Your task to perform on an android device: toggle improve location accuracy Image 0: 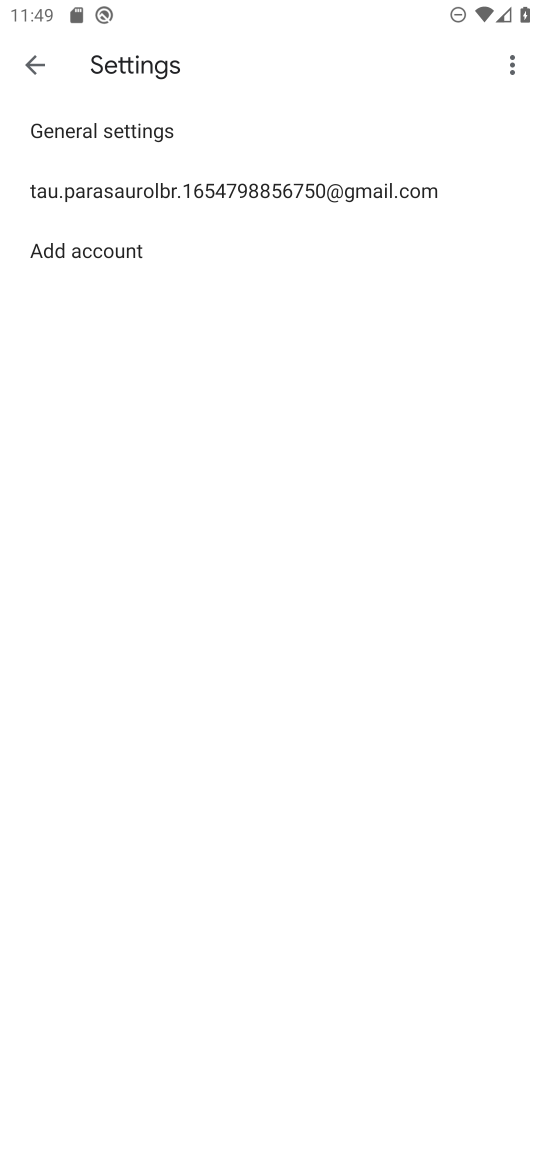
Step 0: press home button
Your task to perform on an android device: toggle improve location accuracy Image 1: 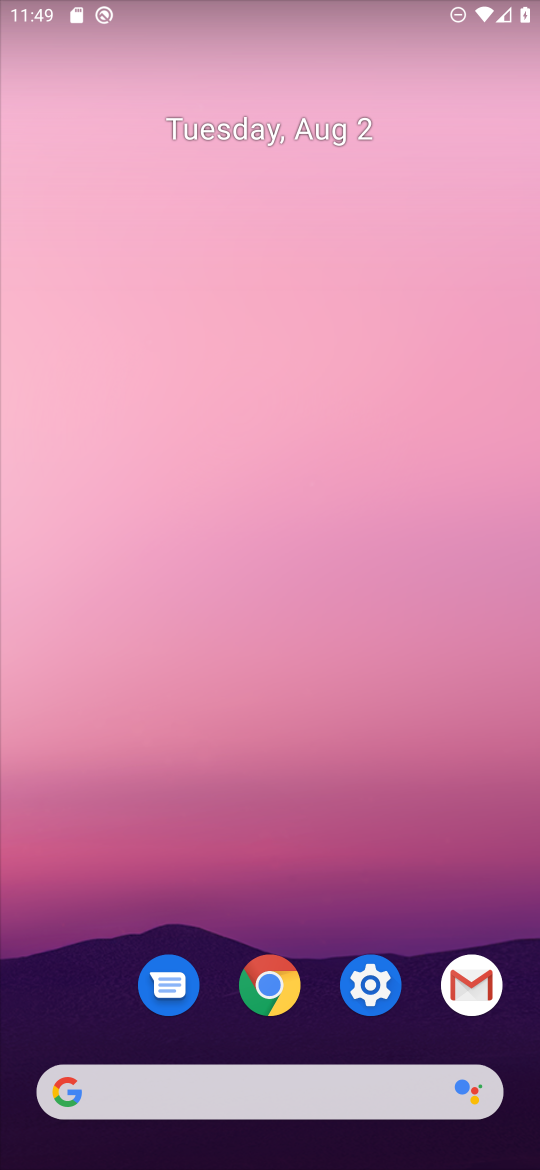
Step 1: click (369, 994)
Your task to perform on an android device: toggle improve location accuracy Image 2: 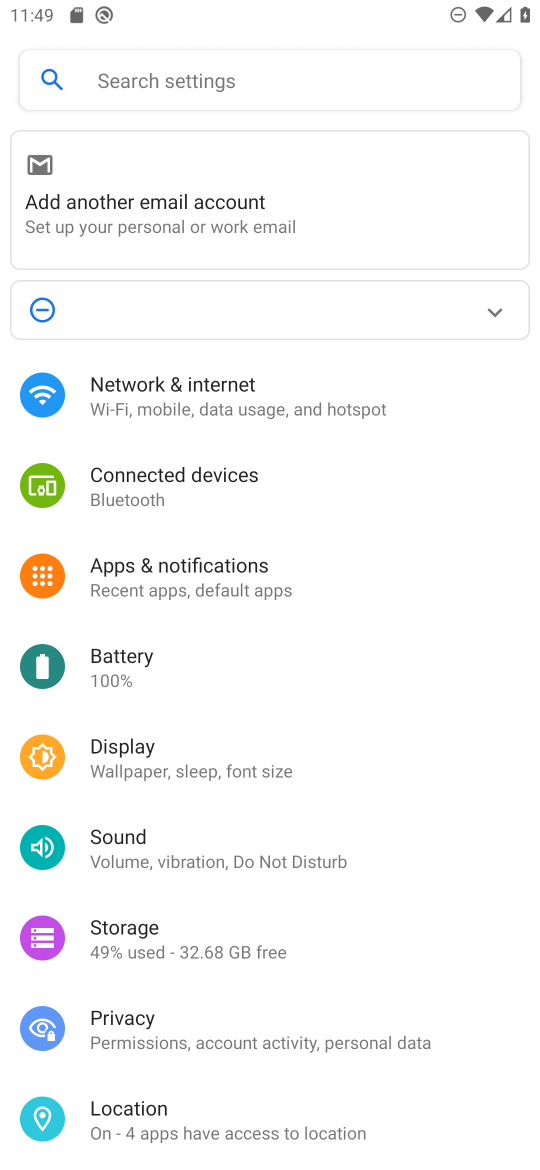
Step 2: click (162, 1103)
Your task to perform on an android device: toggle improve location accuracy Image 3: 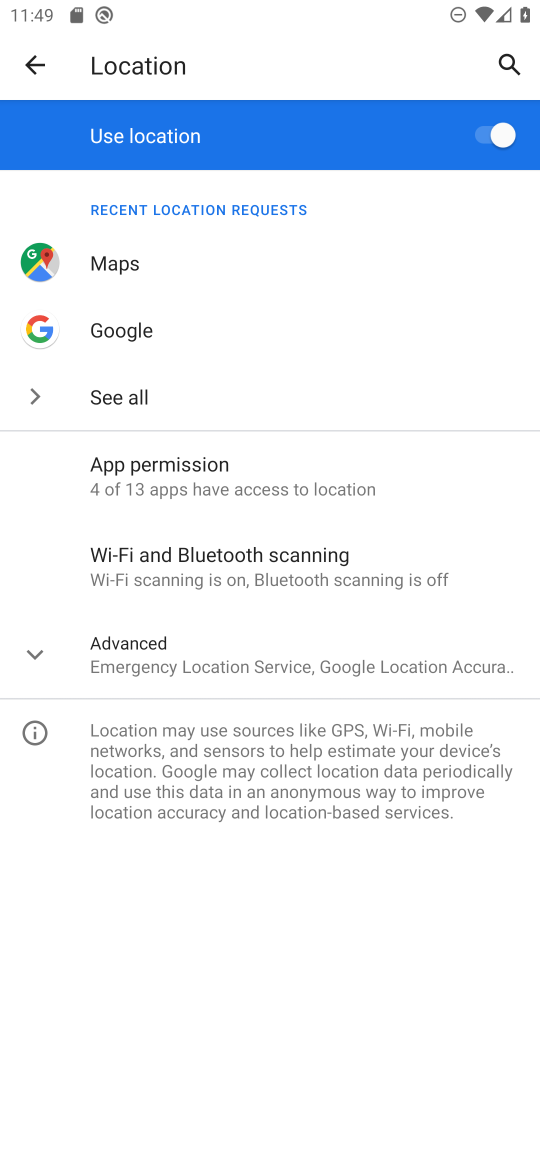
Step 3: click (89, 664)
Your task to perform on an android device: toggle improve location accuracy Image 4: 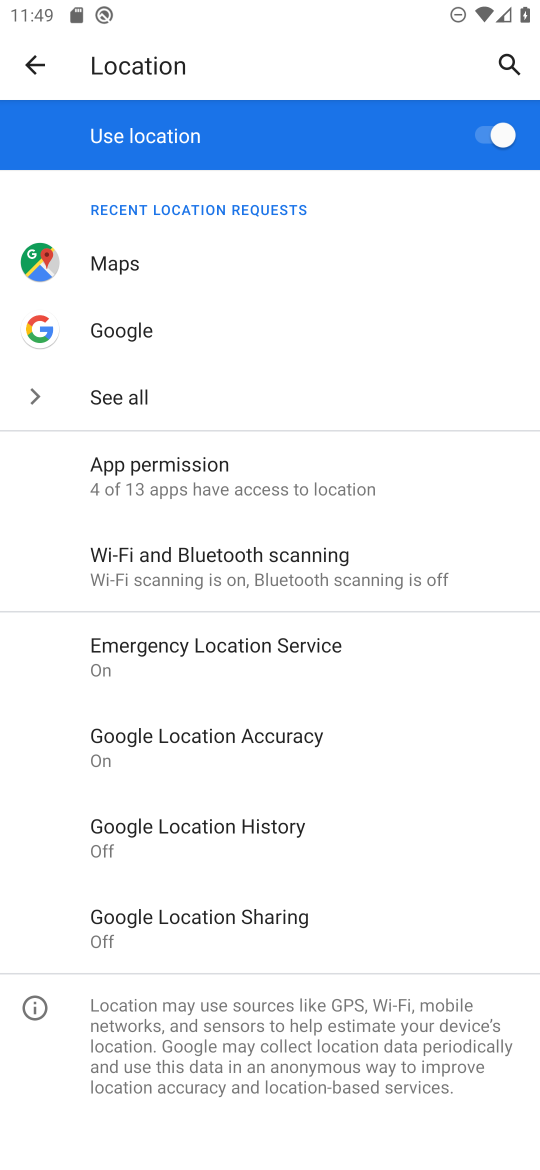
Step 4: click (241, 732)
Your task to perform on an android device: toggle improve location accuracy Image 5: 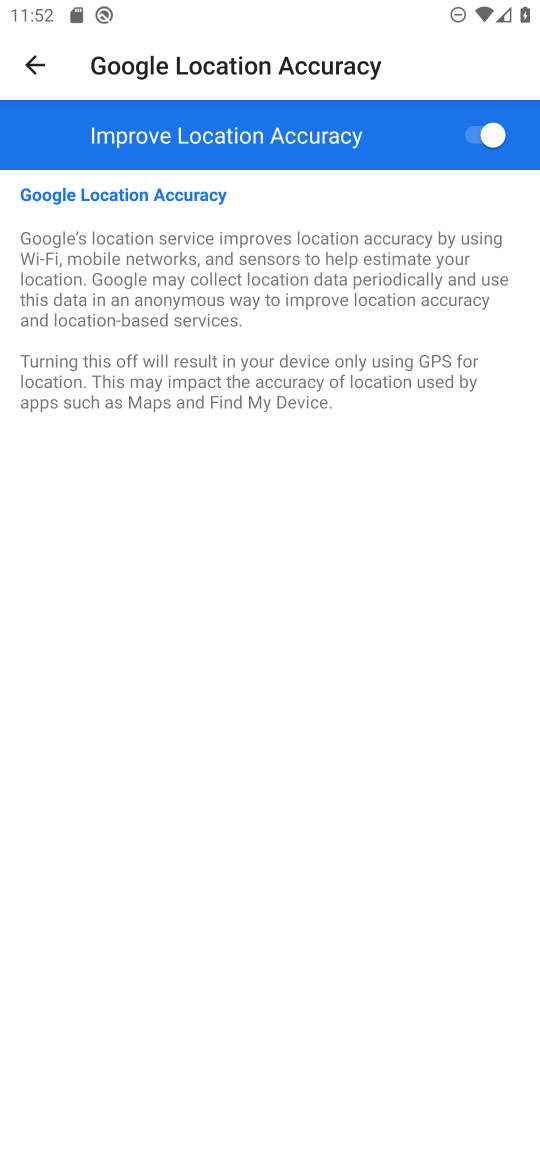
Step 5: task complete